Your task to perform on an android device: turn notification dots on Image 0: 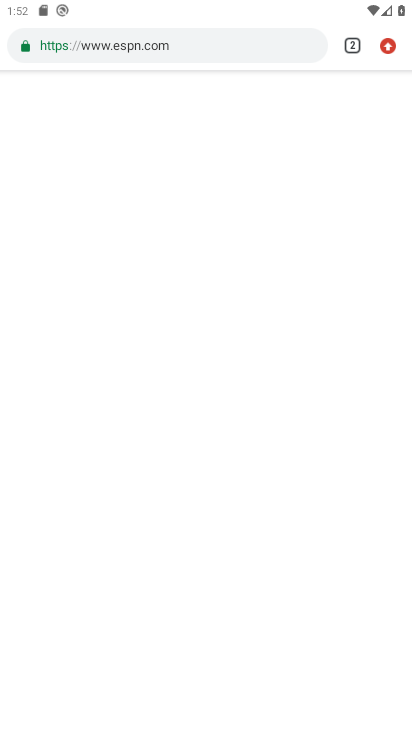
Step 0: press back button
Your task to perform on an android device: turn notification dots on Image 1: 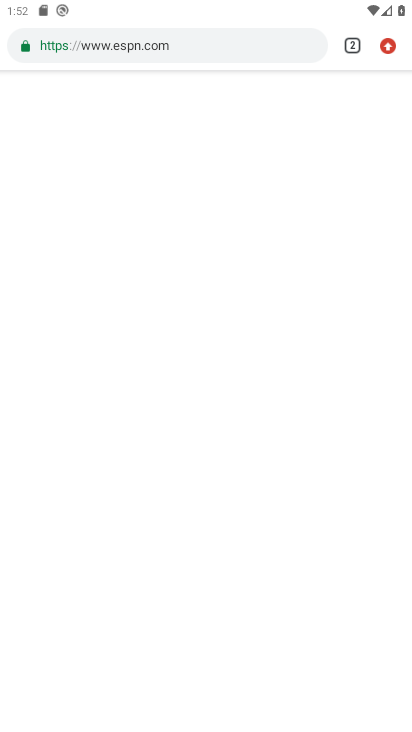
Step 1: press home button
Your task to perform on an android device: turn notification dots on Image 2: 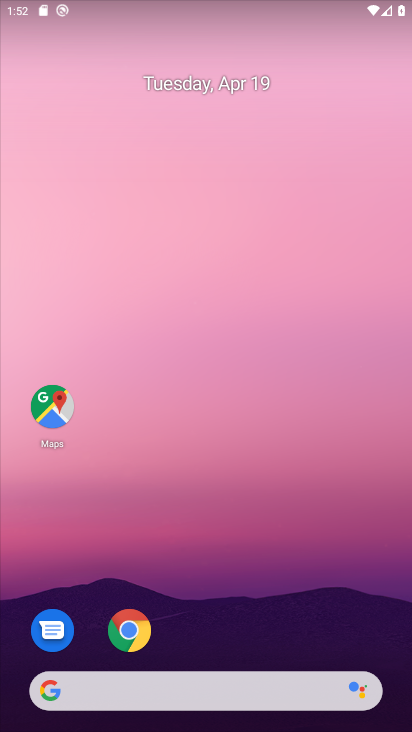
Step 2: drag from (289, 588) to (276, 86)
Your task to perform on an android device: turn notification dots on Image 3: 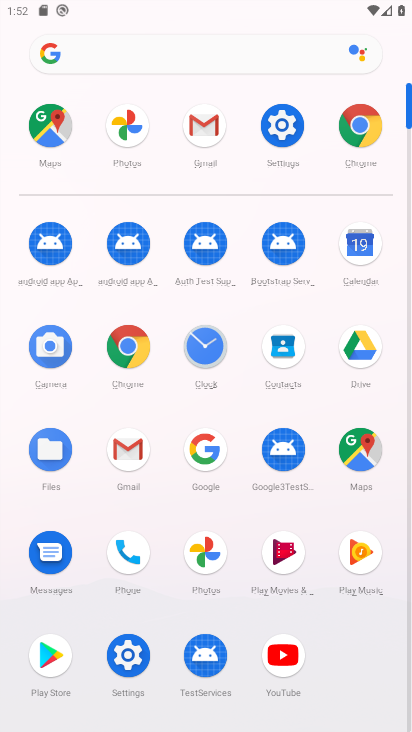
Step 3: click (280, 115)
Your task to perform on an android device: turn notification dots on Image 4: 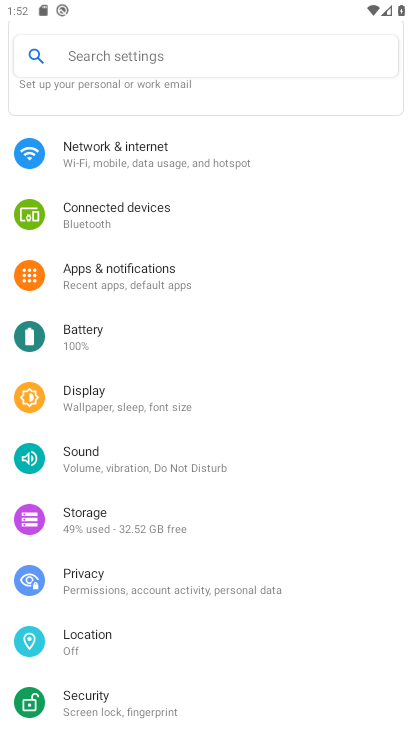
Step 4: click (185, 269)
Your task to perform on an android device: turn notification dots on Image 5: 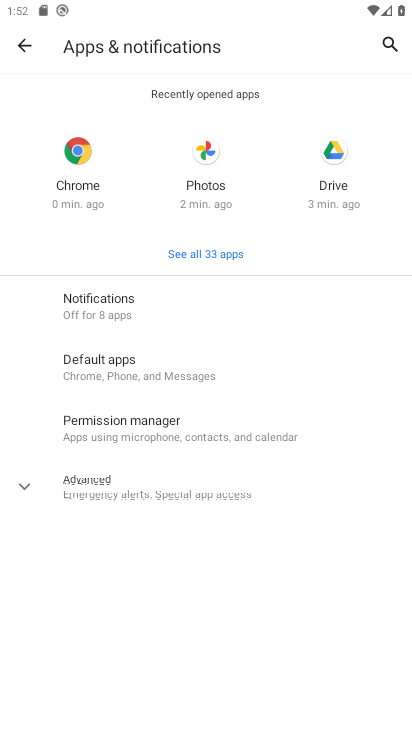
Step 5: click (184, 296)
Your task to perform on an android device: turn notification dots on Image 6: 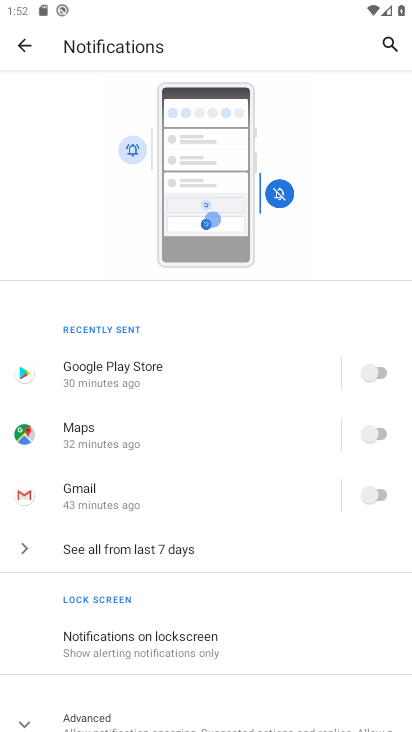
Step 6: drag from (220, 595) to (263, 309)
Your task to perform on an android device: turn notification dots on Image 7: 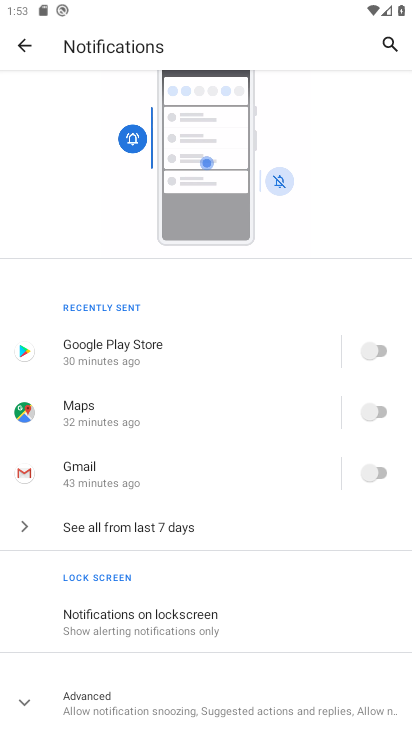
Step 7: click (262, 709)
Your task to perform on an android device: turn notification dots on Image 8: 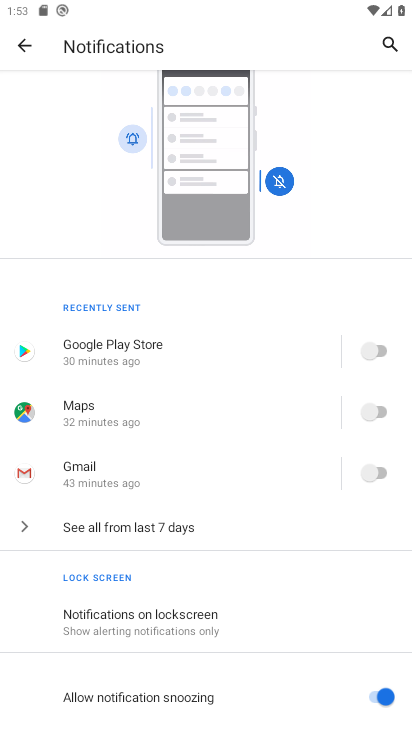
Step 8: drag from (217, 700) to (235, 487)
Your task to perform on an android device: turn notification dots on Image 9: 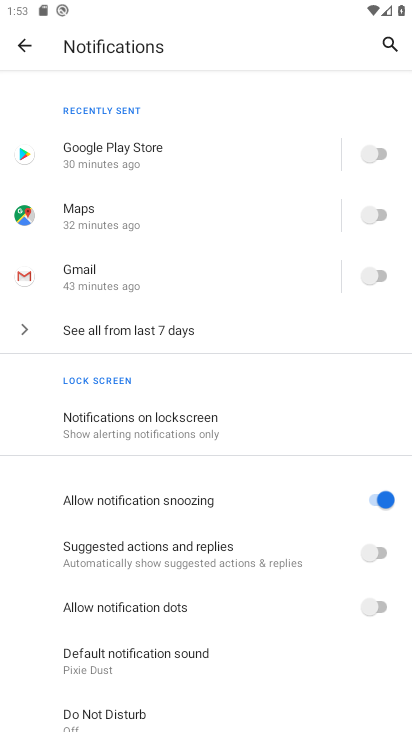
Step 9: click (364, 613)
Your task to perform on an android device: turn notification dots on Image 10: 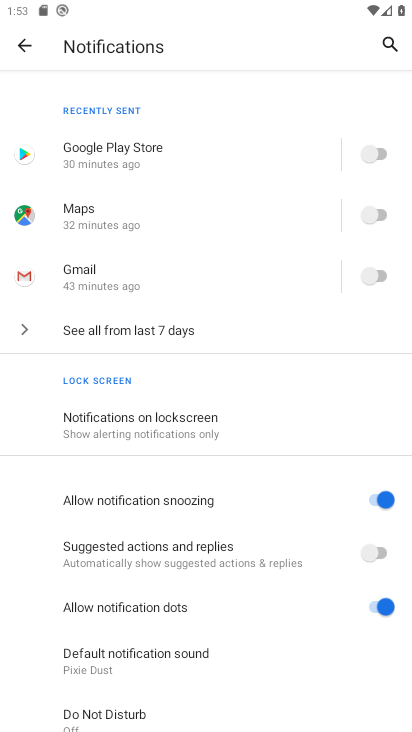
Step 10: task complete